Your task to perform on an android device: toggle javascript in the chrome app Image 0: 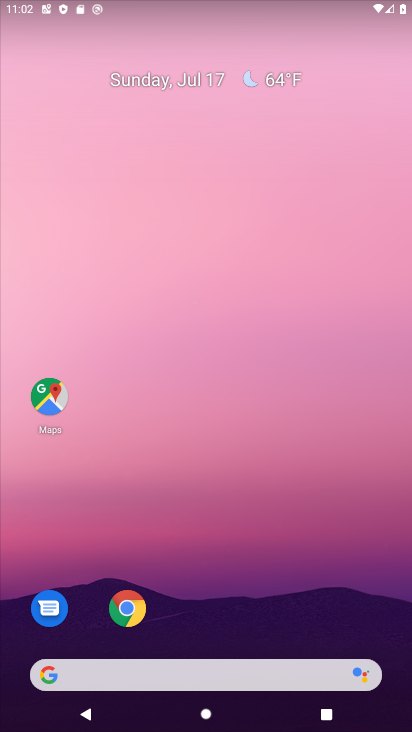
Step 0: drag from (355, 600) to (13, 8)
Your task to perform on an android device: toggle javascript in the chrome app Image 1: 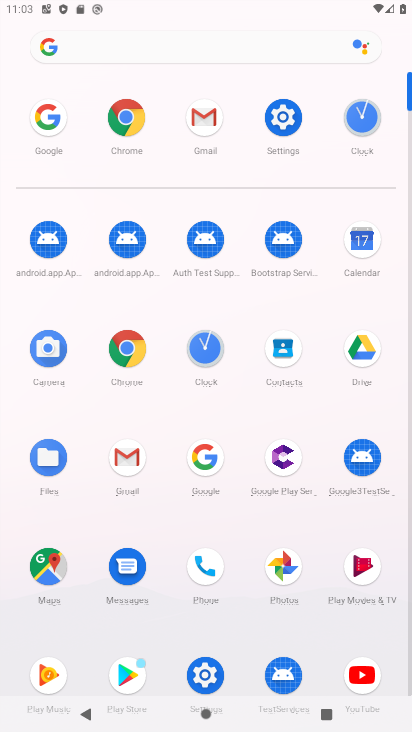
Step 1: click (130, 170)
Your task to perform on an android device: toggle javascript in the chrome app Image 2: 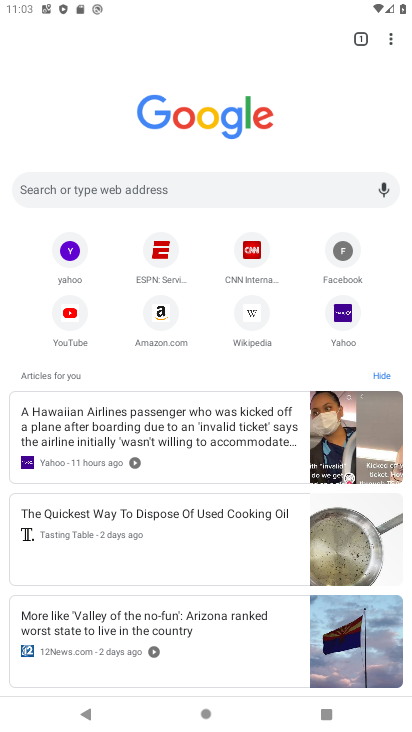
Step 2: click (390, 33)
Your task to perform on an android device: toggle javascript in the chrome app Image 3: 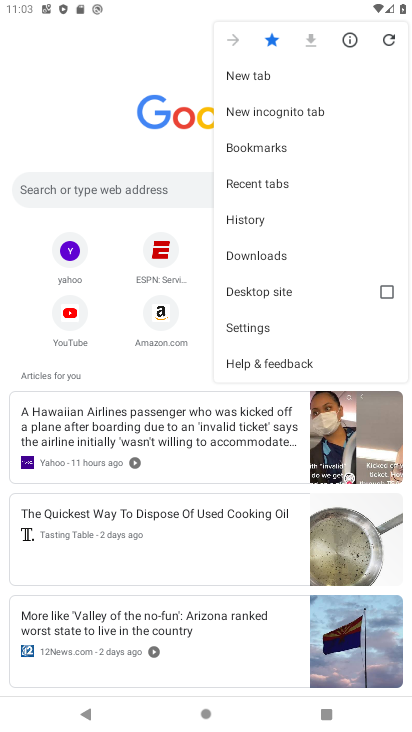
Step 3: click (252, 329)
Your task to perform on an android device: toggle javascript in the chrome app Image 4: 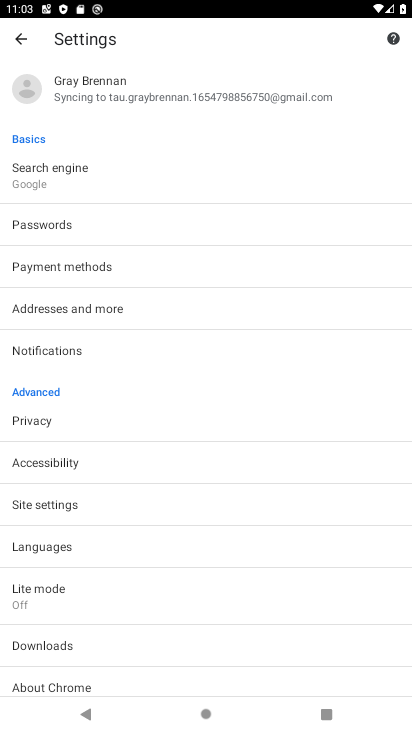
Step 4: click (96, 499)
Your task to perform on an android device: toggle javascript in the chrome app Image 5: 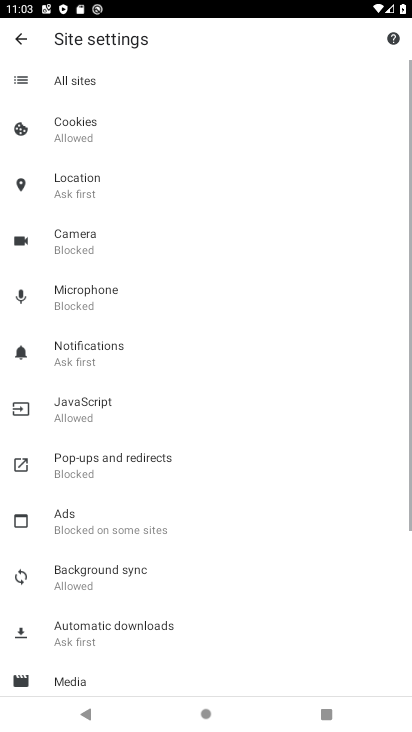
Step 5: click (80, 417)
Your task to perform on an android device: toggle javascript in the chrome app Image 6: 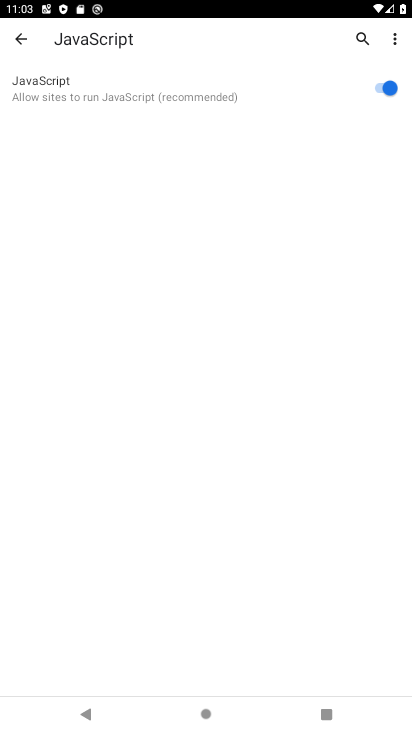
Step 6: click (357, 96)
Your task to perform on an android device: toggle javascript in the chrome app Image 7: 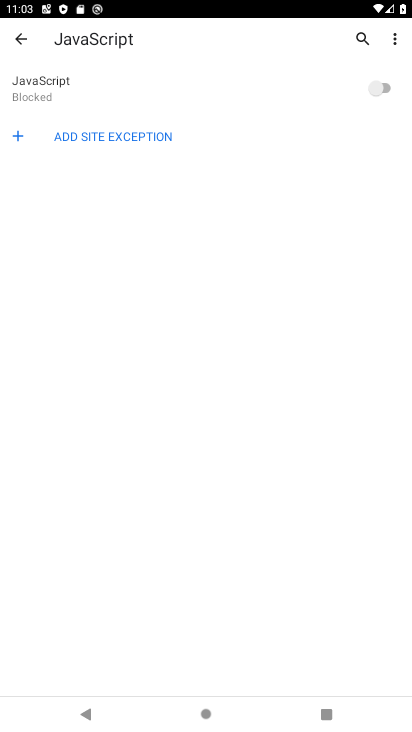
Step 7: task complete